Your task to perform on an android device: What's the weather going to be tomorrow? Image 0: 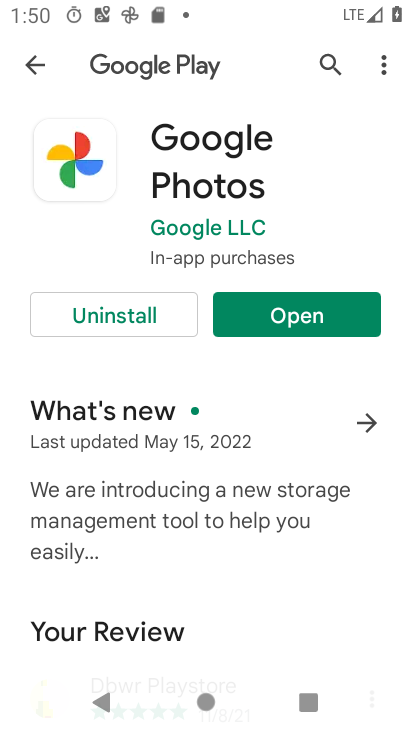
Step 0: press home button
Your task to perform on an android device: What's the weather going to be tomorrow? Image 1: 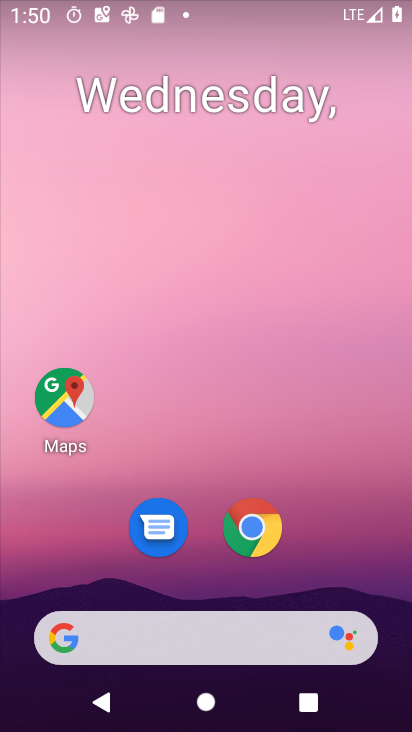
Step 1: drag from (8, 228) to (358, 215)
Your task to perform on an android device: What's the weather going to be tomorrow? Image 2: 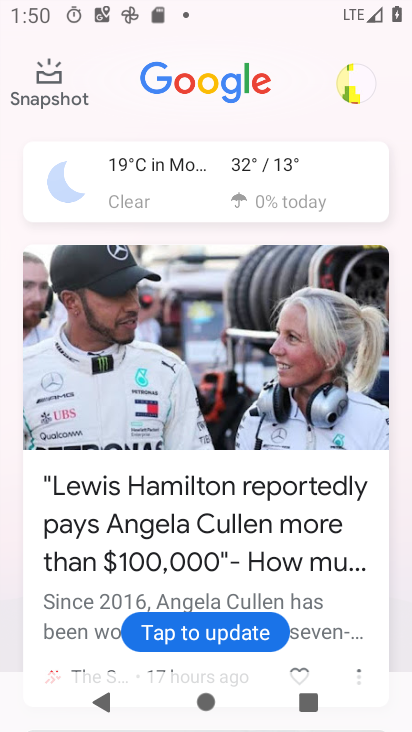
Step 2: click (184, 199)
Your task to perform on an android device: What's the weather going to be tomorrow? Image 3: 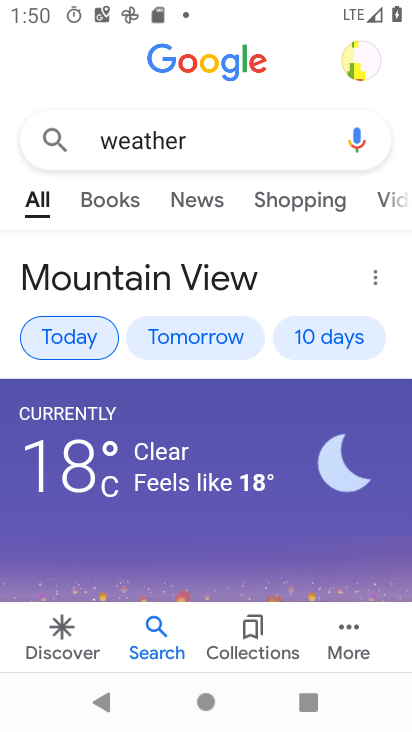
Step 3: drag from (212, 353) to (145, 353)
Your task to perform on an android device: What's the weather going to be tomorrow? Image 4: 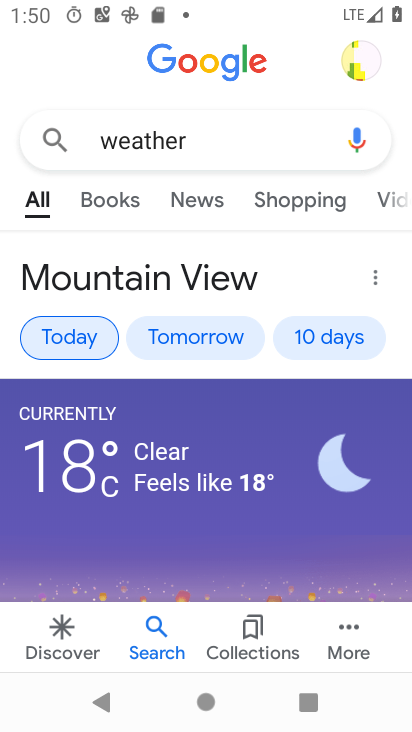
Step 4: click (206, 348)
Your task to perform on an android device: What's the weather going to be tomorrow? Image 5: 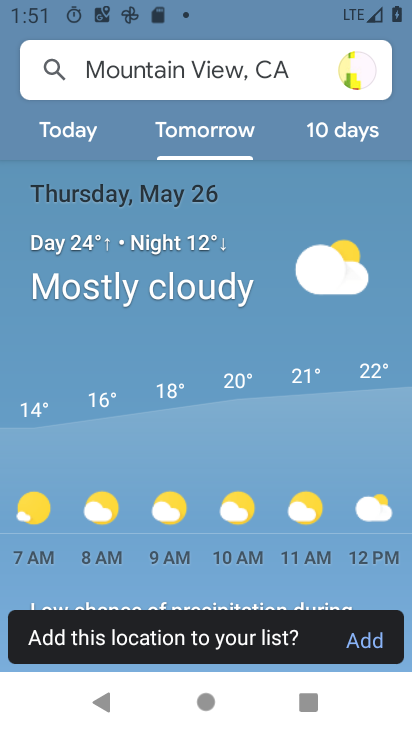
Step 5: task complete